Your task to perform on an android device: Open Amazon Image 0: 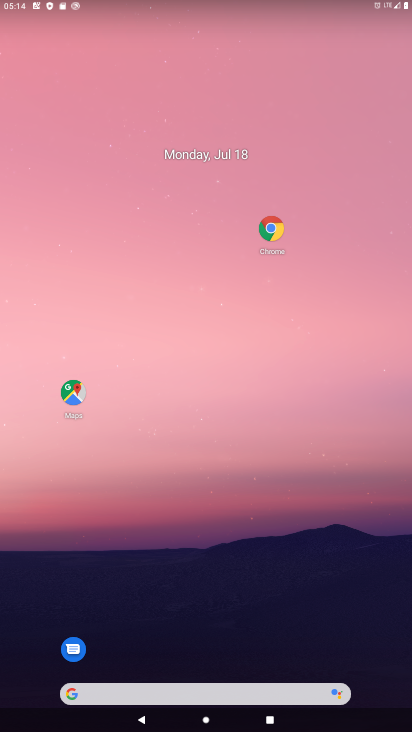
Step 0: click (277, 237)
Your task to perform on an android device: Open Amazon Image 1: 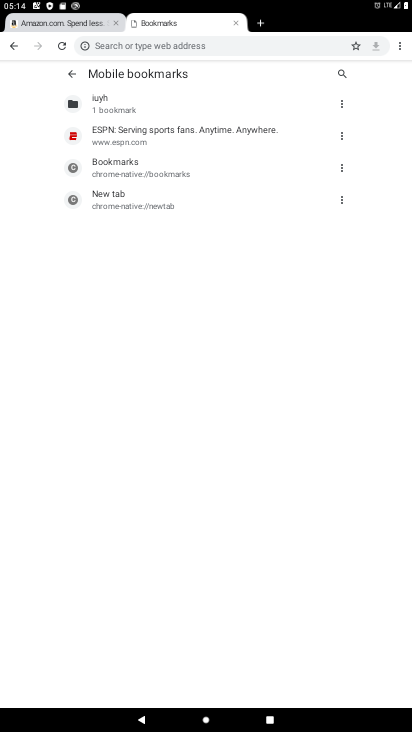
Step 1: click (257, 18)
Your task to perform on an android device: Open Amazon Image 2: 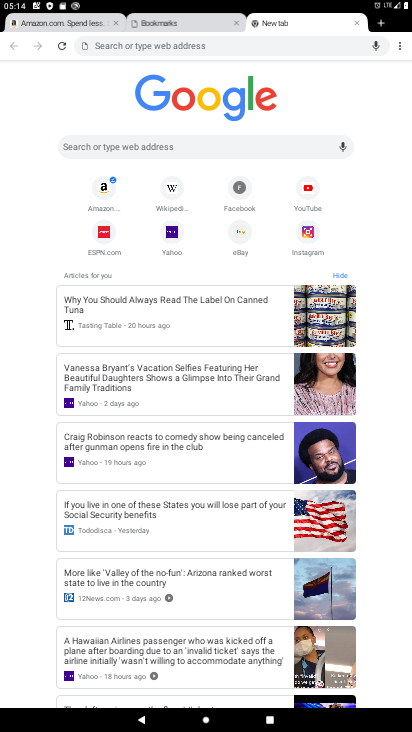
Step 2: click (106, 189)
Your task to perform on an android device: Open Amazon Image 3: 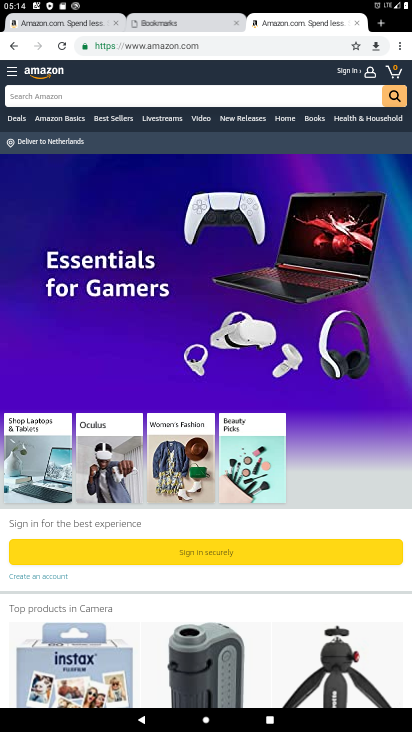
Step 3: task complete